Your task to perform on an android device: clear all cookies in the chrome app Image 0: 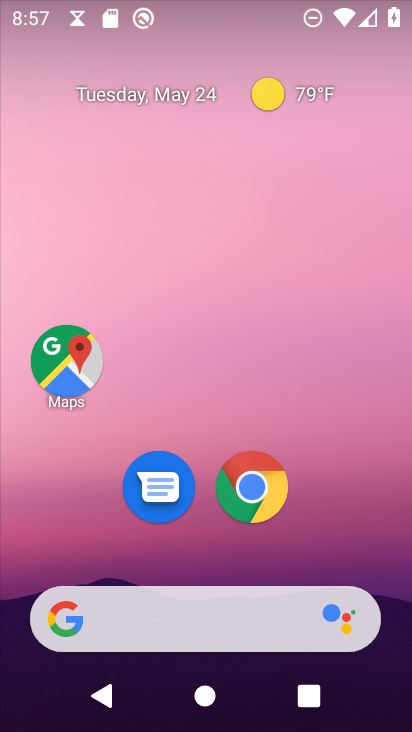
Step 0: press home button
Your task to perform on an android device: clear all cookies in the chrome app Image 1: 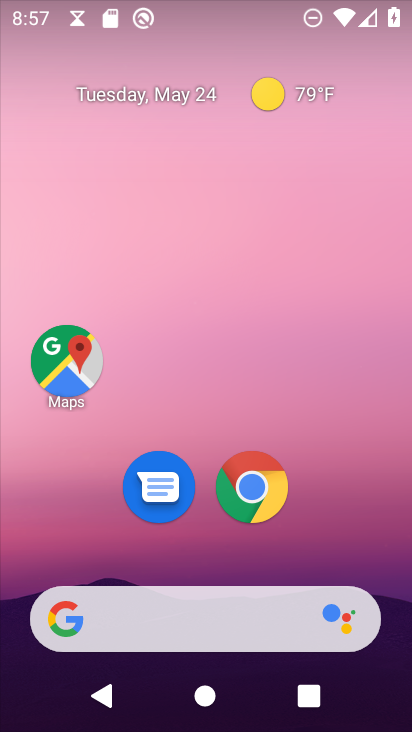
Step 1: click (253, 484)
Your task to perform on an android device: clear all cookies in the chrome app Image 2: 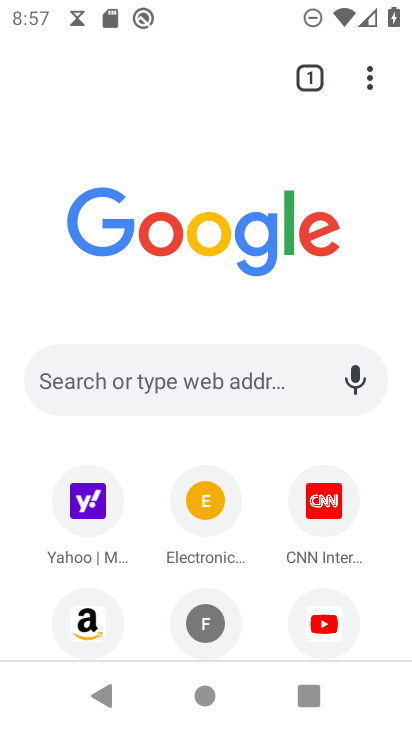
Step 2: click (365, 72)
Your task to perform on an android device: clear all cookies in the chrome app Image 3: 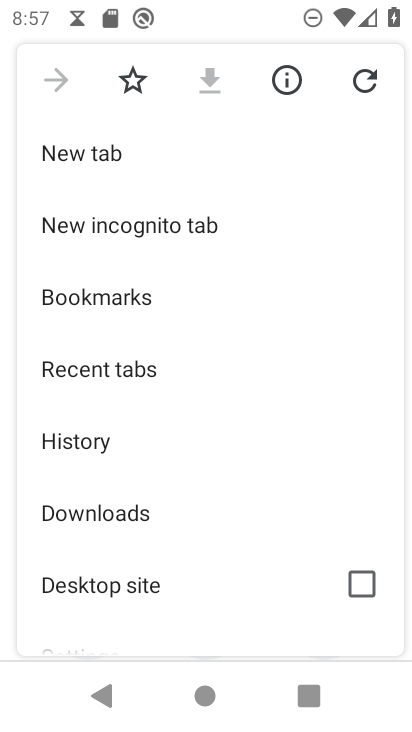
Step 3: click (106, 437)
Your task to perform on an android device: clear all cookies in the chrome app Image 4: 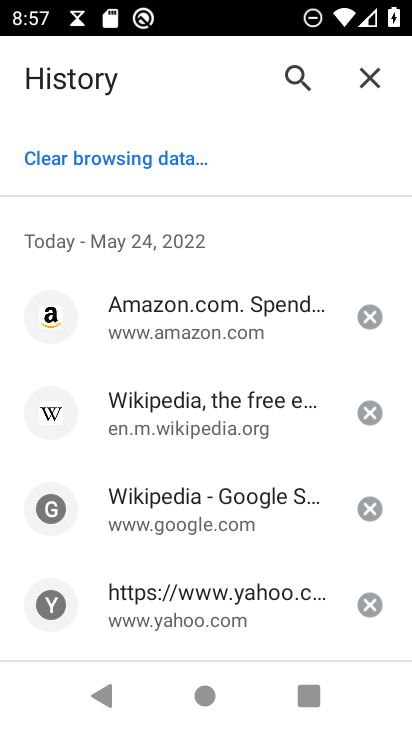
Step 4: click (174, 157)
Your task to perform on an android device: clear all cookies in the chrome app Image 5: 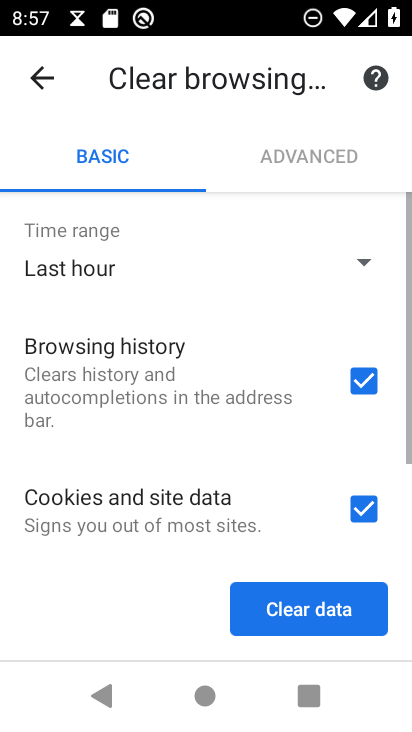
Step 5: click (348, 592)
Your task to perform on an android device: clear all cookies in the chrome app Image 6: 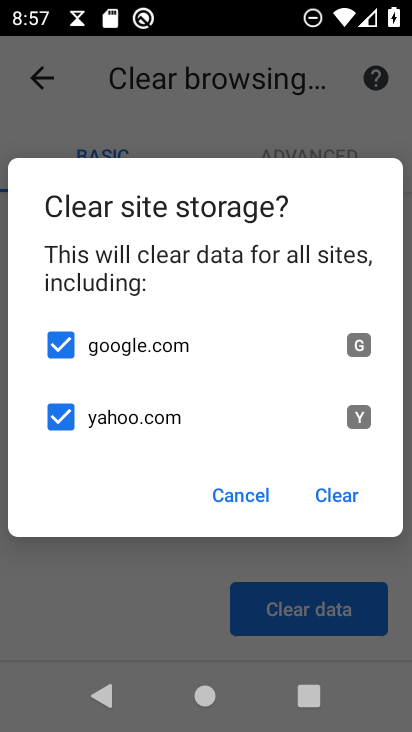
Step 6: click (336, 490)
Your task to perform on an android device: clear all cookies in the chrome app Image 7: 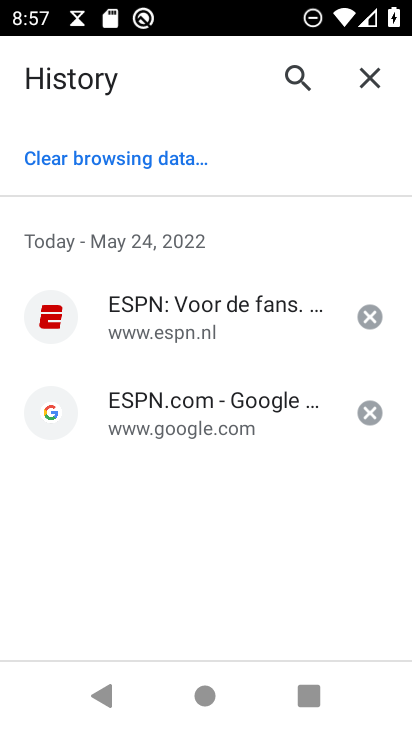
Step 7: task complete